Your task to perform on an android device: Go to eBay Image 0: 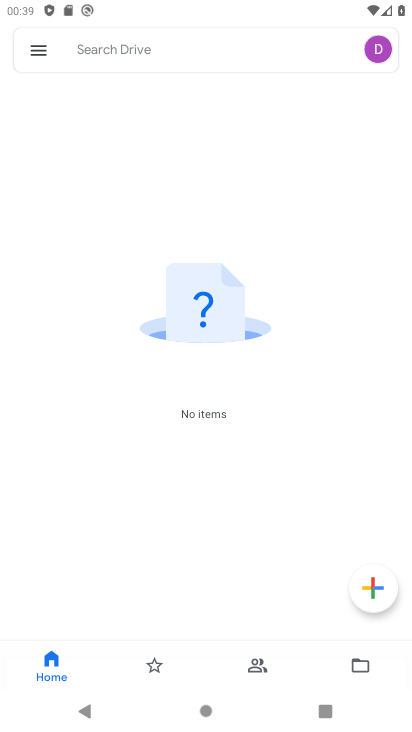
Step 0: press back button
Your task to perform on an android device: Go to eBay Image 1: 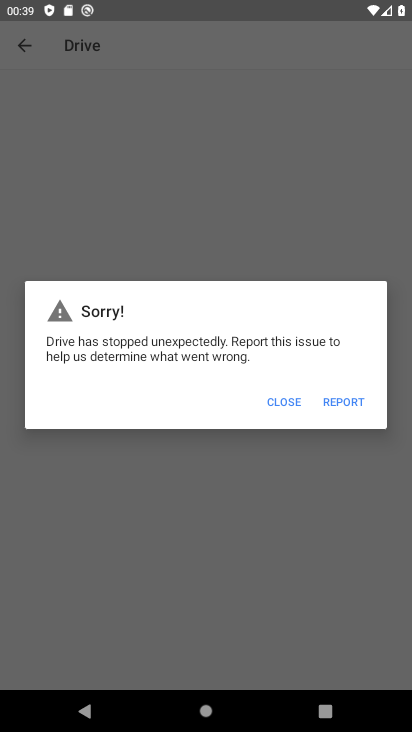
Step 1: press back button
Your task to perform on an android device: Go to eBay Image 2: 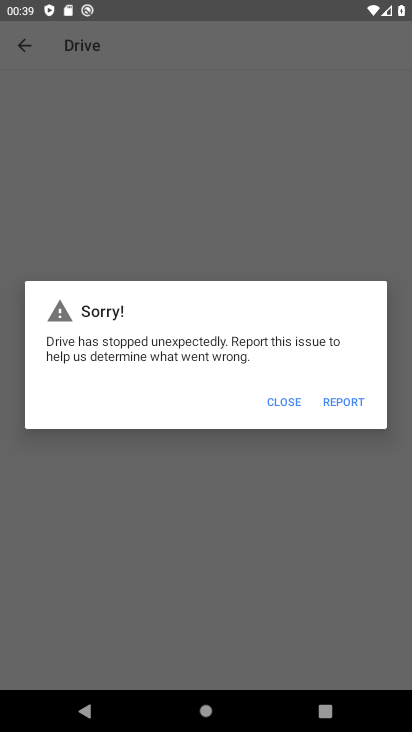
Step 2: press home button
Your task to perform on an android device: Go to eBay Image 3: 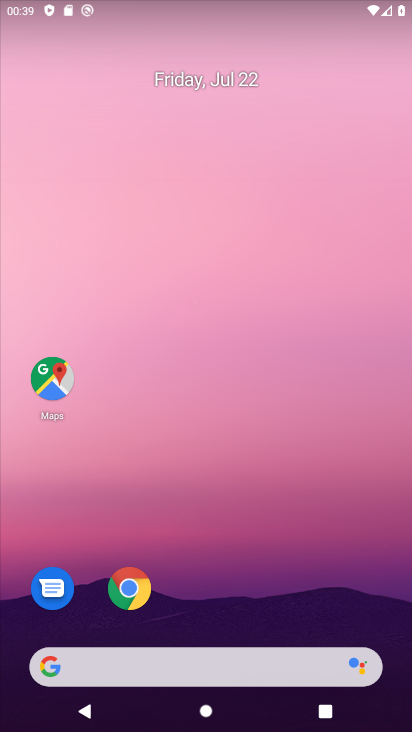
Step 3: click (134, 578)
Your task to perform on an android device: Go to eBay Image 4: 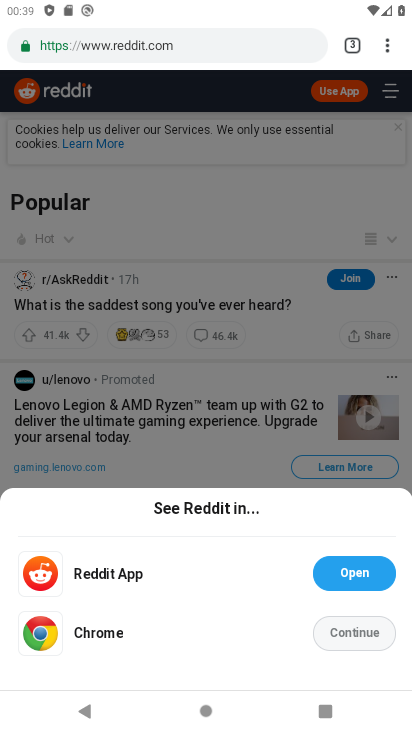
Step 4: click (355, 46)
Your task to perform on an android device: Go to eBay Image 5: 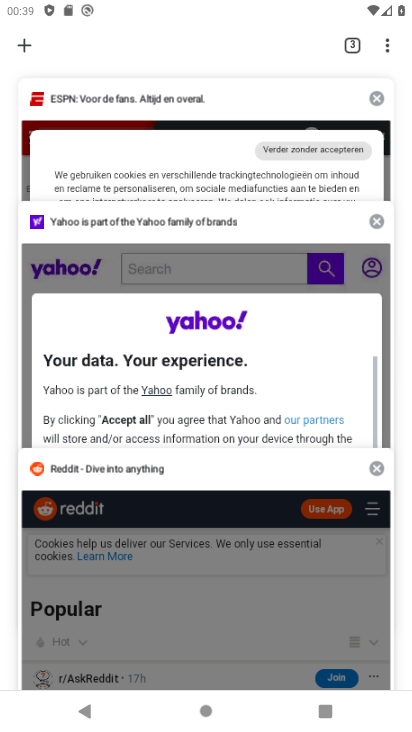
Step 5: click (23, 46)
Your task to perform on an android device: Go to eBay Image 6: 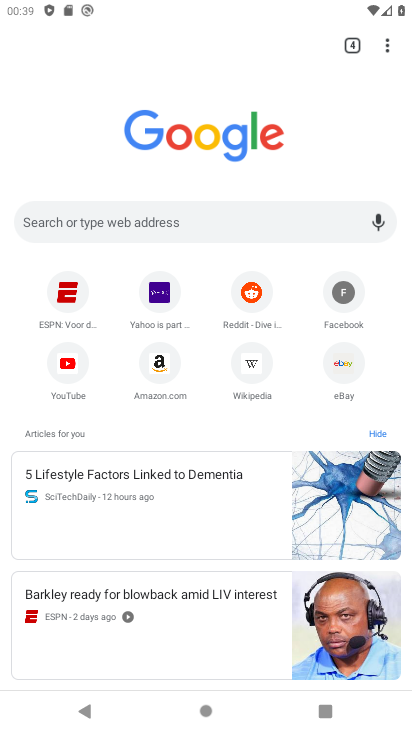
Step 6: click (350, 363)
Your task to perform on an android device: Go to eBay Image 7: 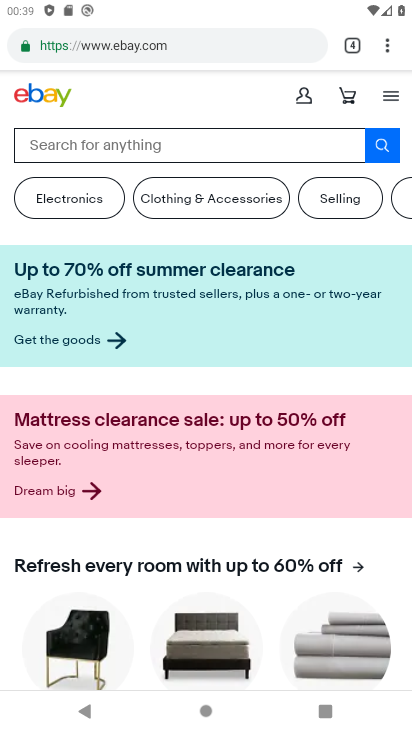
Step 7: task complete